Your task to perform on an android device: Go to battery settings Image 0: 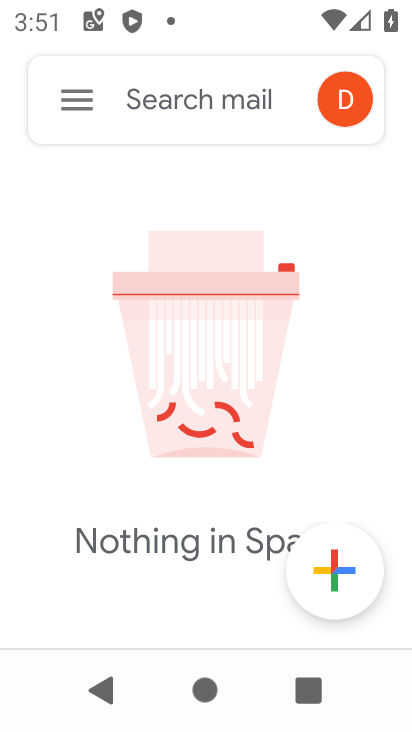
Step 0: press home button
Your task to perform on an android device: Go to battery settings Image 1: 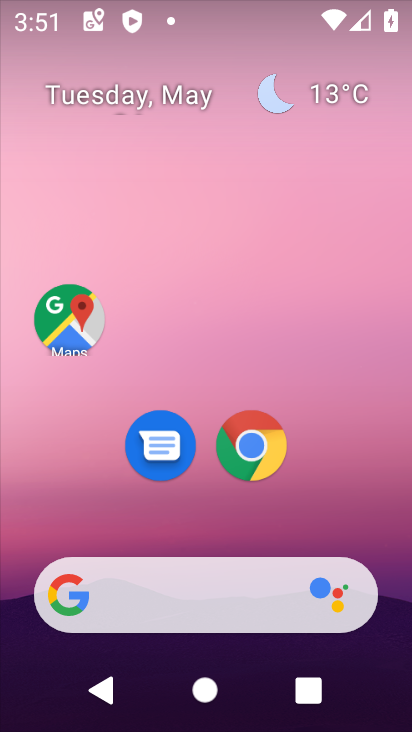
Step 1: drag from (215, 530) to (248, 44)
Your task to perform on an android device: Go to battery settings Image 2: 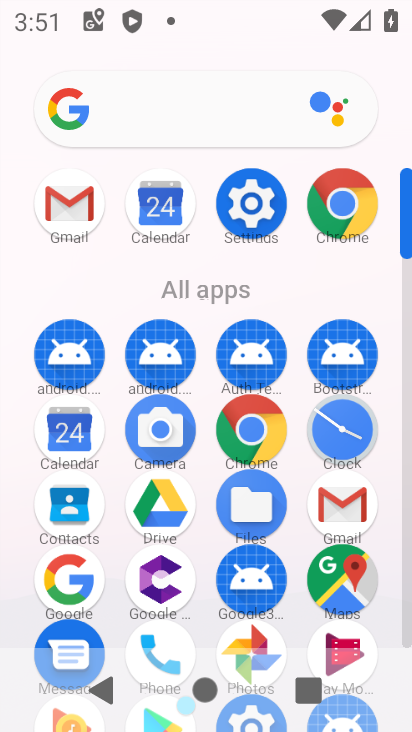
Step 2: click (249, 196)
Your task to perform on an android device: Go to battery settings Image 3: 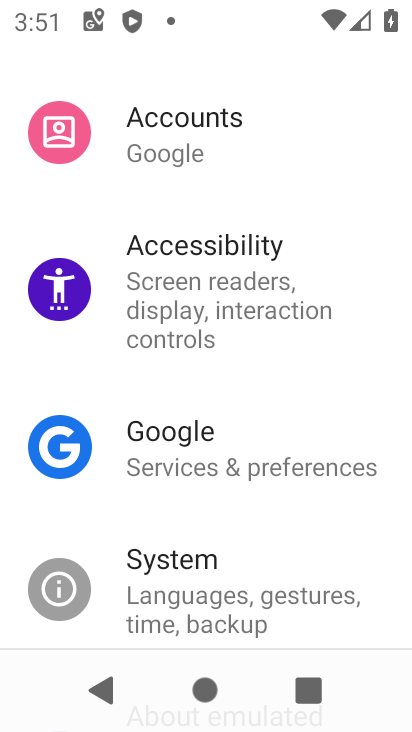
Step 3: drag from (108, 102) to (128, 635)
Your task to perform on an android device: Go to battery settings Image 4: 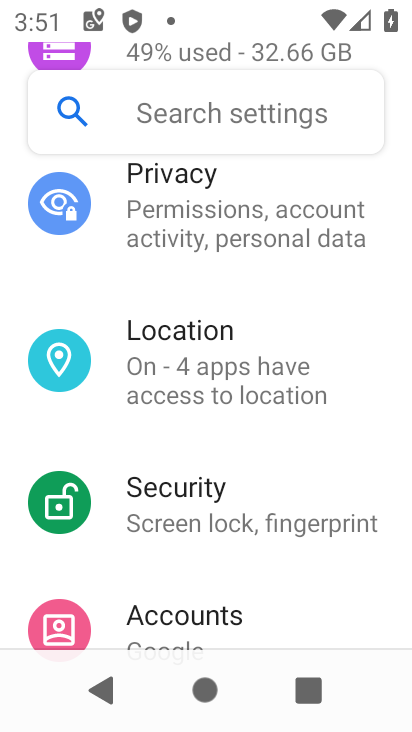
Step 4: drag from (111, 163) to (97, 631)
Your task to perform on an android device: Go to battery settings Image 5: 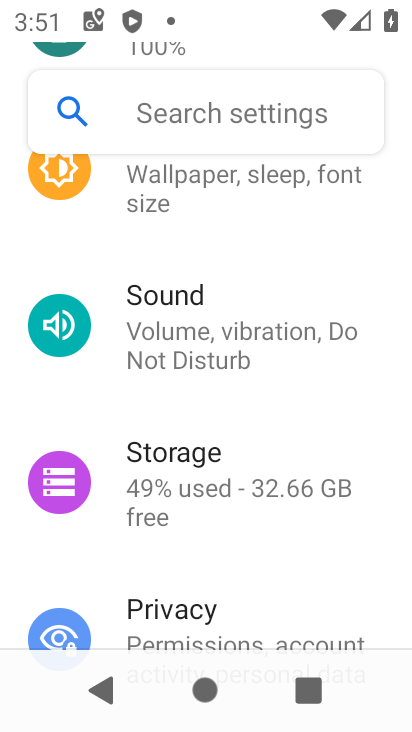
Step 5: drag from (116, 205) to (123, 613)
Your task to perform on an android device: Go to battery settings Image 6: 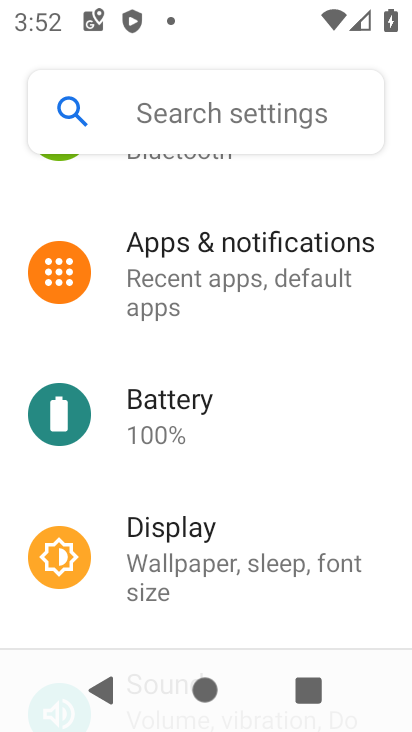
Step 6: click (110, 398)
Your task to perform on an android device: Go to battery settings Image 7: 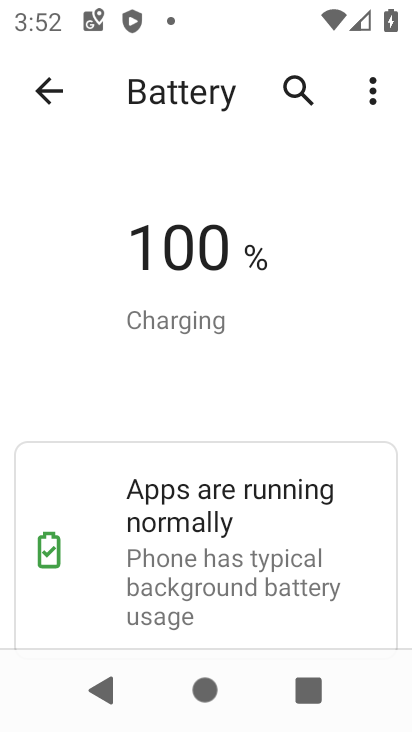
Step 7: task complete